Your task to perform on an android device: Search for Italian restaurants on Maps Image 0: 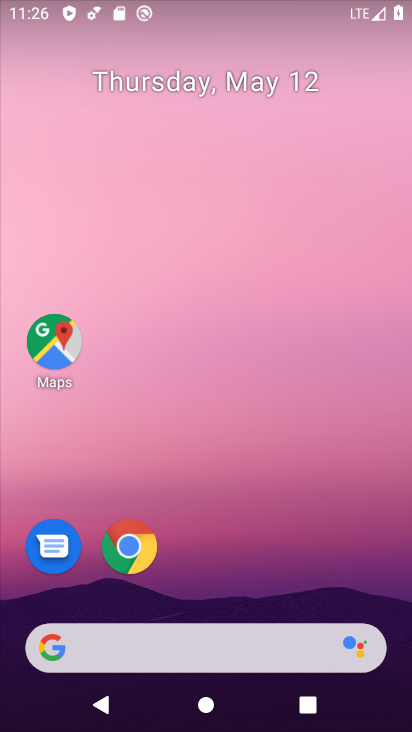
Step 0: click (46, 343)
Your task to perform on an android device: Search for Italian restaurants on Maps Image 1: 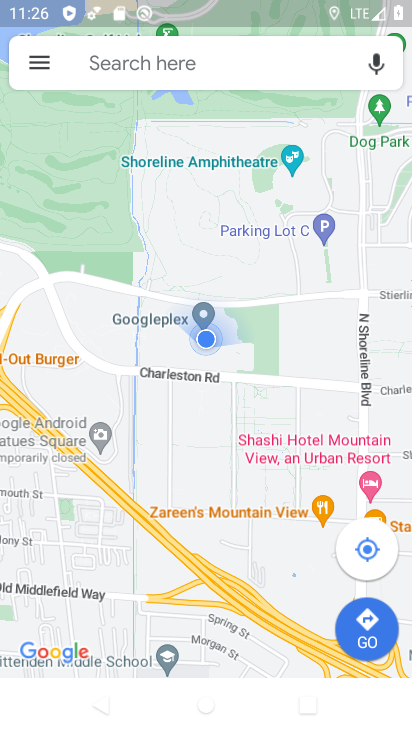
Step 1: click (209, 73)
Your task to perform on an android device: Search for Italian restaurants on Maps Image 2: 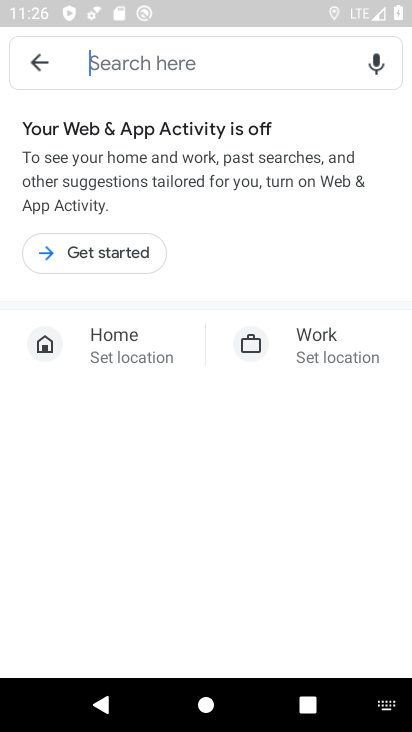
Step 2: type "Italian restaurants"
Your task to perform on an android device: Search for Italian restaurants on Maps Image 3: 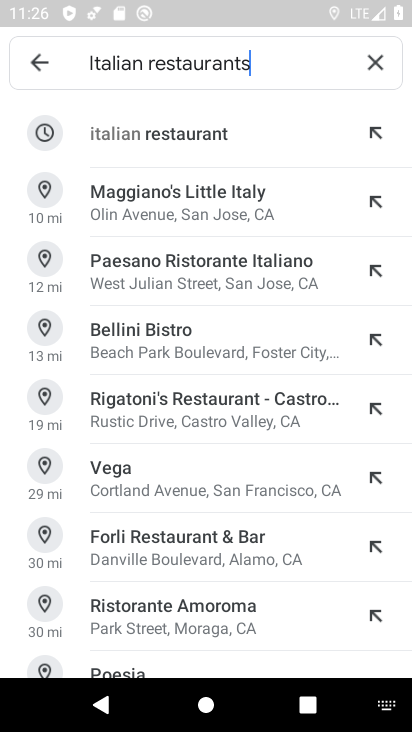
Step 3: click (173, 133)
Your task to perform on an android device: Search for Italian restaurants on Maps Image 4: 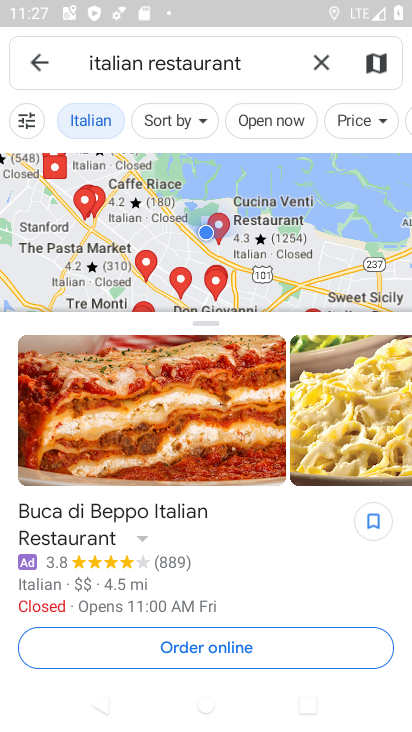
Step 4: task complete